Your task to perform on an android device: snooze an email in the gmail app Image 0: 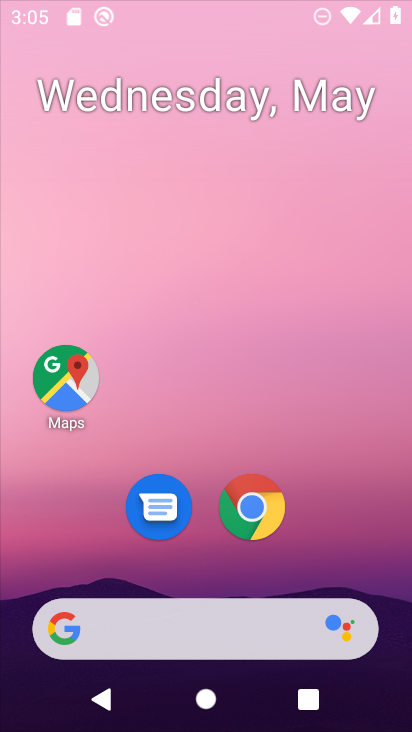
Step 0: click (363, 255)
Your task to perform on an android device: snooze an email in the gmail app Image 1: 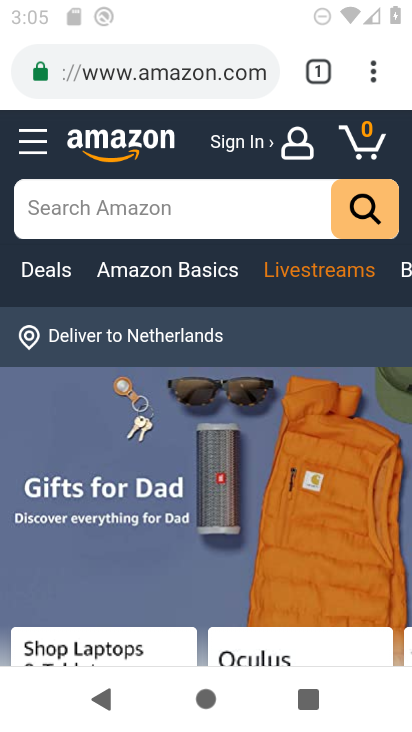
Step 1: drag from (215, 580) to (249, 158)
Your task to perform on an android device: snooze an email in the gmail app Image 2: 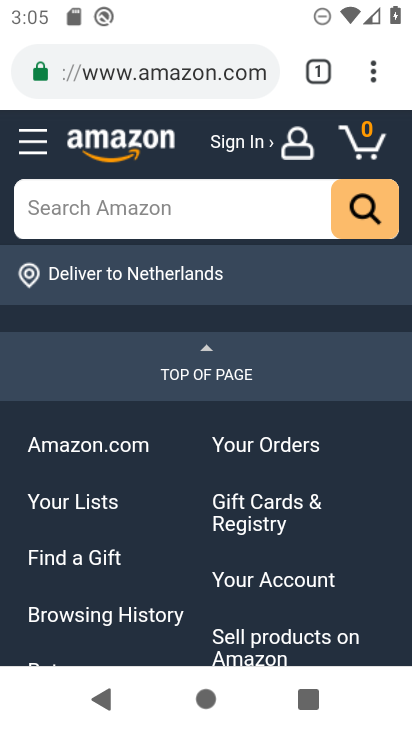
Step 2: press home button
Your task to perform on an android device: snooze an email in the gmail app Image 3: 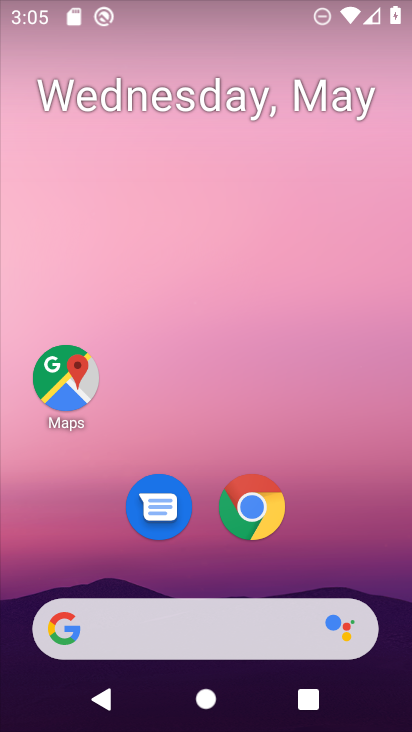
Step 3: drag from (223, 571) to (277, 118)
Your task to perform on an android device: snooze an email in the gmail app Image 4: 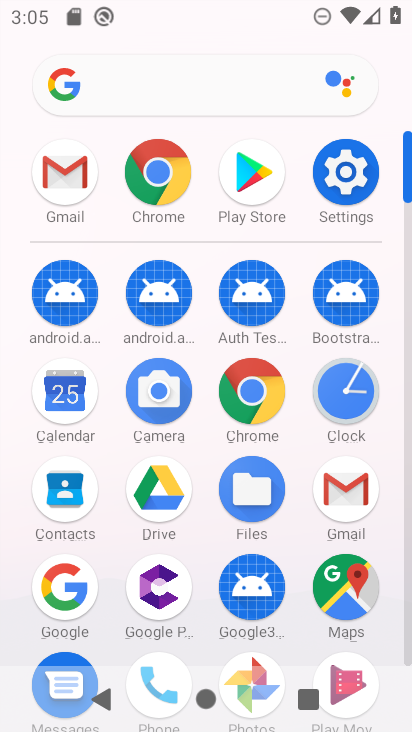
Step 4: click (337, 493)
Your task to perform on an android device: snooze an email in the gmail app Image 5: 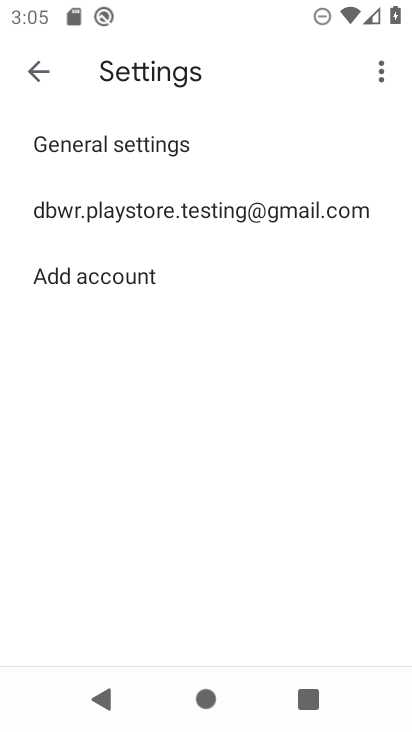
Step 5: click (36, 63)
Your task to perform on an android device: snooze an email in the gmail app Image 6: 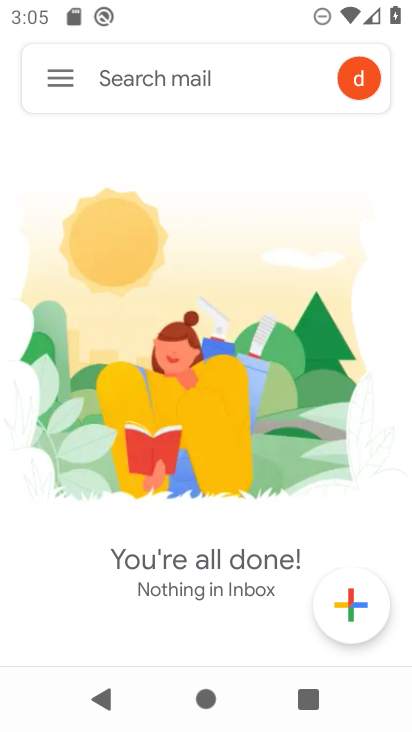
Step 6: click (47, 77)
Your task to perform on an android device: snooze an email in the gmail app Image 7: 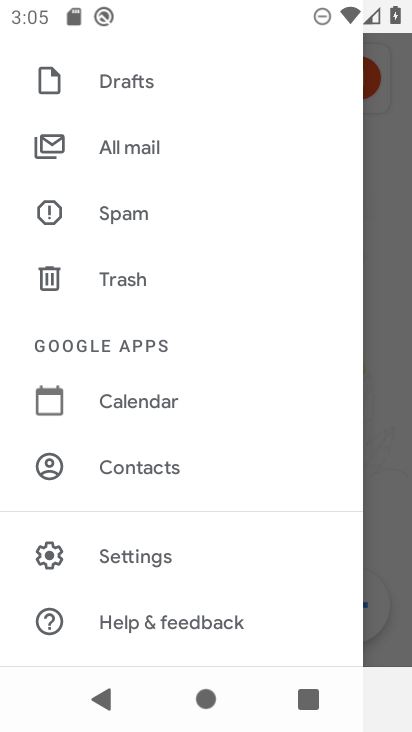
Step 7: click (139, 147)
Your task to perform on an android device: snooze an email in the gmail app Image 8: 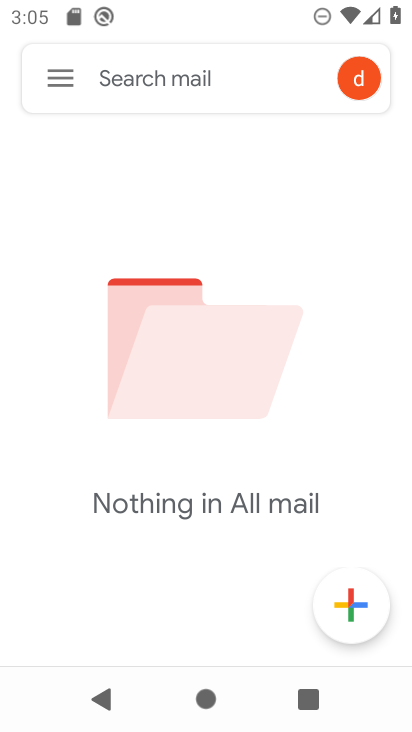
Step 8: task complete